Your task to perform on an android device: create a new album in the google photos Image 0: 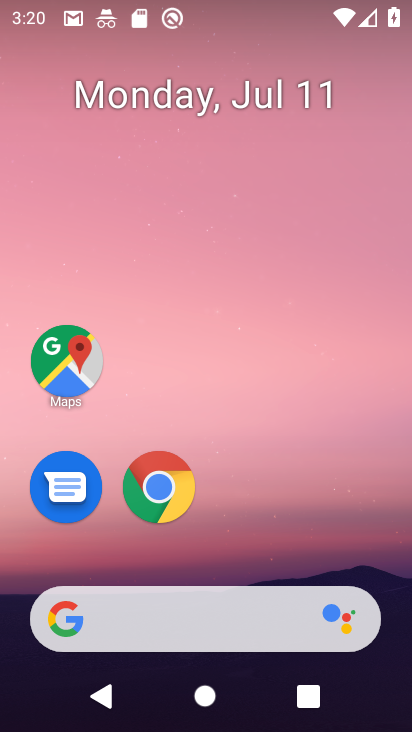
Step 0: drag from (183, 566) to (261, 129)
Your task to perform on an android device: create a new album in the google photos Image 1: 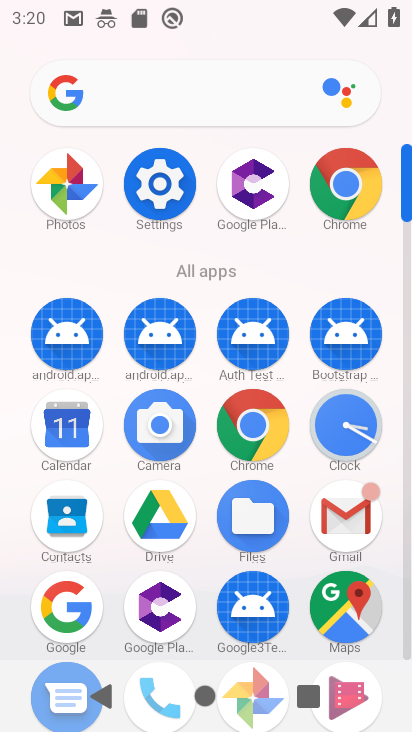
Step 1: drag from (203, 622) to (308, 172)
Your task to perform on an android device: create a new album in the google photos Image 2: 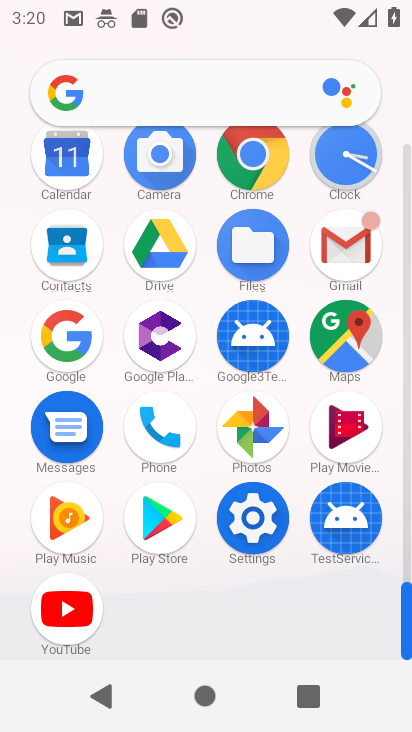
Step 2: click (250, 438)
Your task to perform on an android device: create a new album in the google photos Image 3: 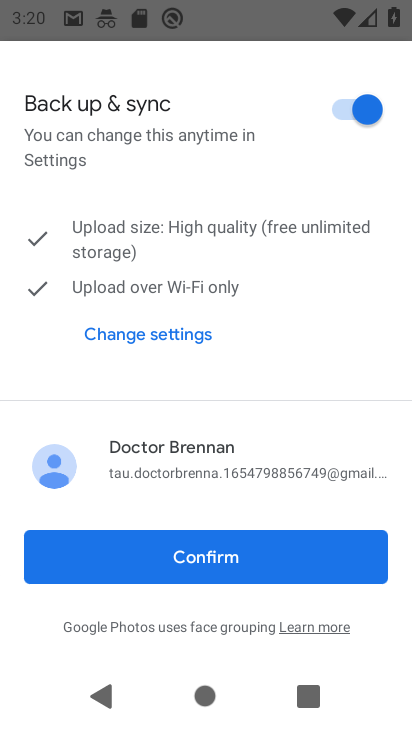
Step 3: click (216, 556)
Your task to perform on an android device: create a new album in the google photos Image 4: 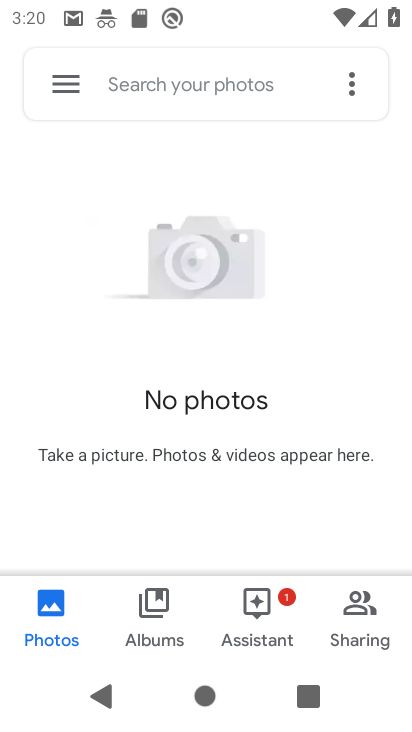
Step 4: click (160, 607)
Your task to perform on an android device: create a new album in the google photos Image 5: 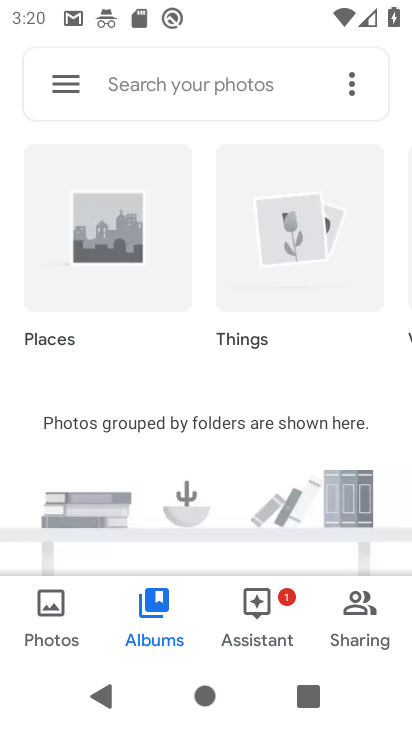
Step 5: task complete